Your task to perform on an android device: delete location history Image 0: 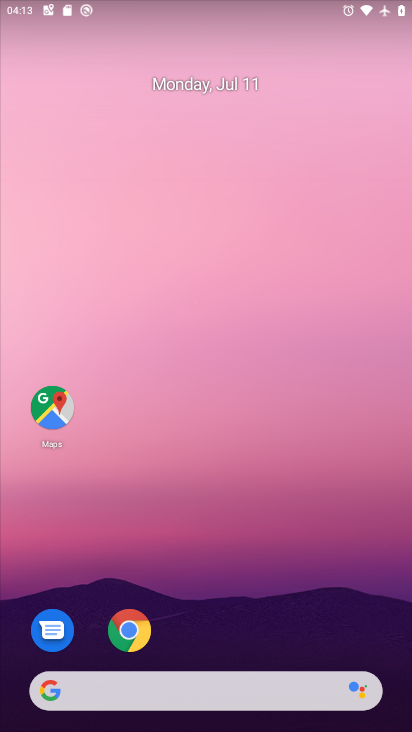
Step 0: drag from (253, 664) to (221, 256)
Your task to perform on an android device: delete location history Image 1: 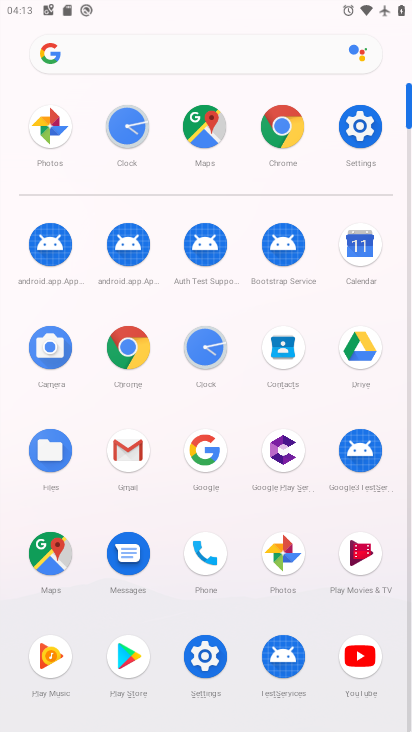
Step 1: click (351, 139)
Your task to perform on an android device: delete location history Image 2: 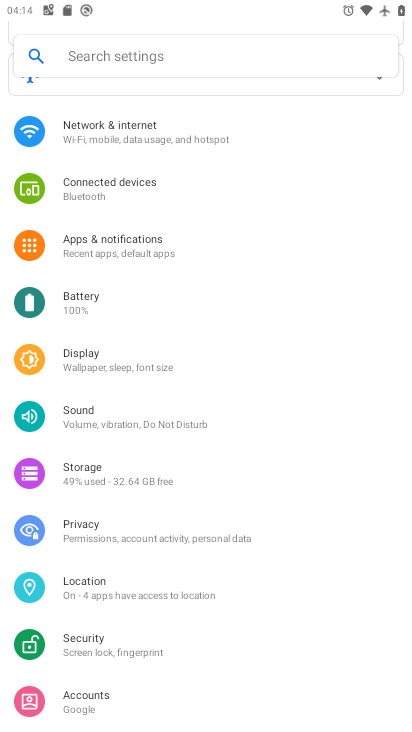
Step 2: click (166, 570)
Your task to perform on an android device: delete location history Image 3: 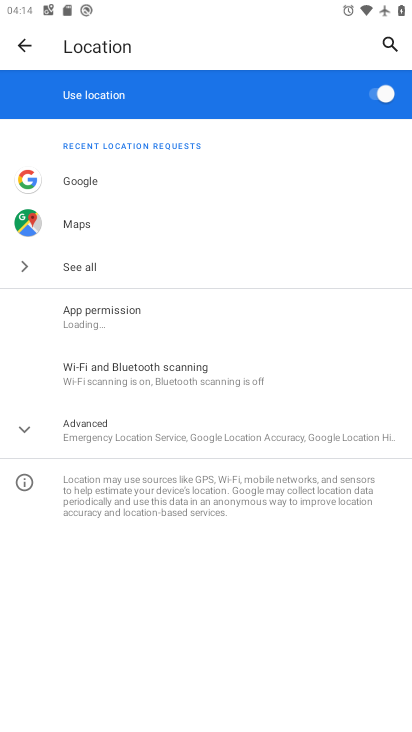
Step 3: click (198, 429)
Your task to perform on an android device: delete location history Image 4: 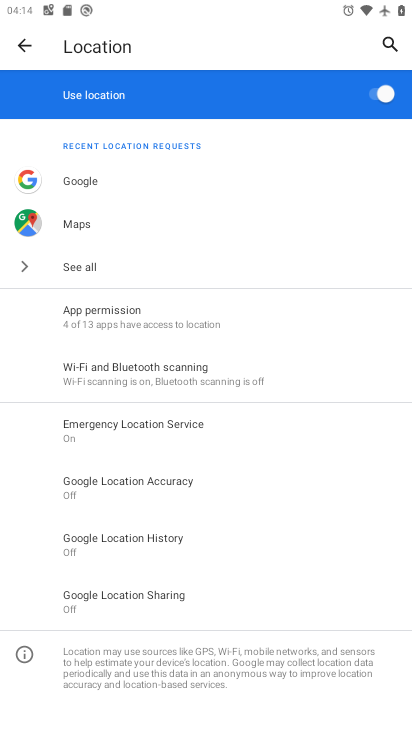
Step 4: click (155, 547)
Your task to perform on an android device: delete location history Image 5: 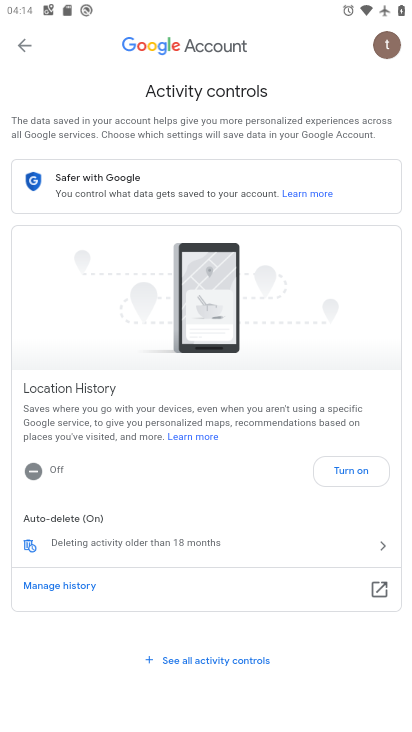
Step 5: click (52, 587)
Your task to perform on an android device: delete location history Image 6: 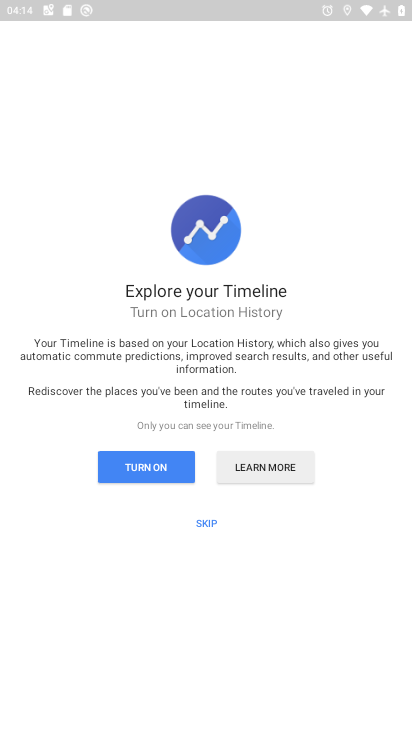
Step 6: click (204, 530)
Your task to perform on an android device: delete location history Image 7: 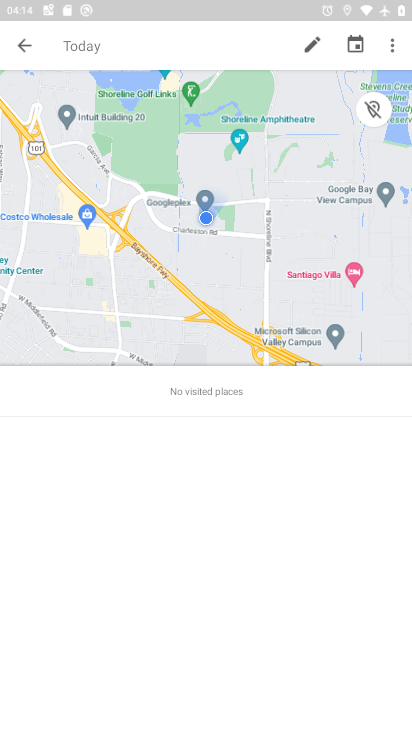
Step 7: task complete